Your task to perform on an android device: Open battery settings Image 0: 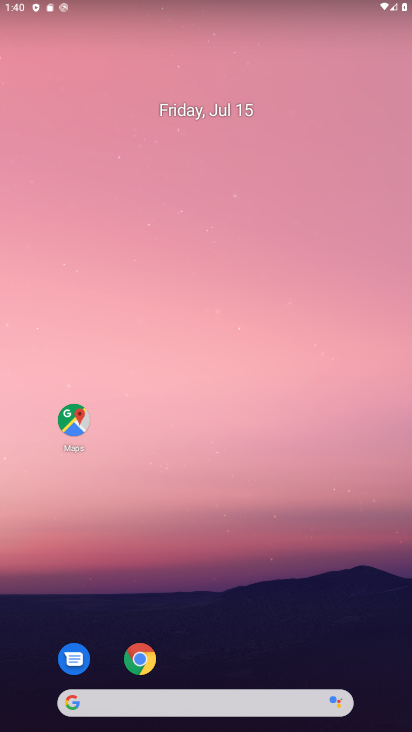
Step 0: drag from (362, 652) to (235, 89)
Your task to perform on an android device: Open battery settings Image 1: 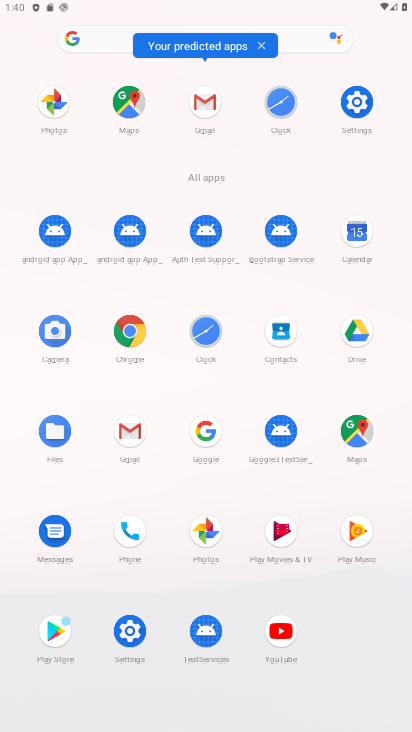
Step 1: click (351, 103)
Your task to perform on an android device: Open battery settings Image 2: 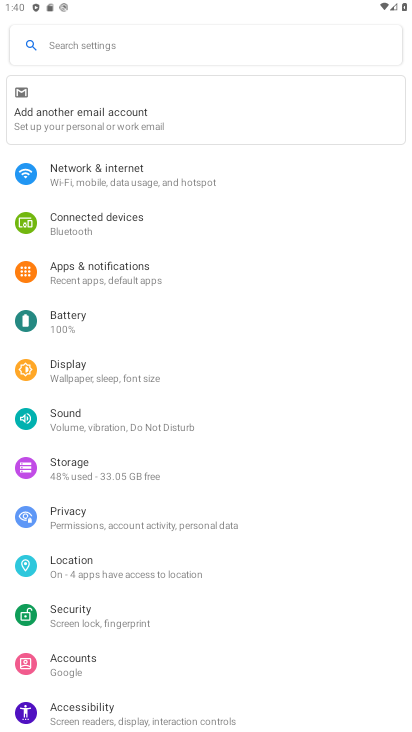
Step 2: click (147, 326)
Your task to perform on an android device: Open battery settings Image 3: 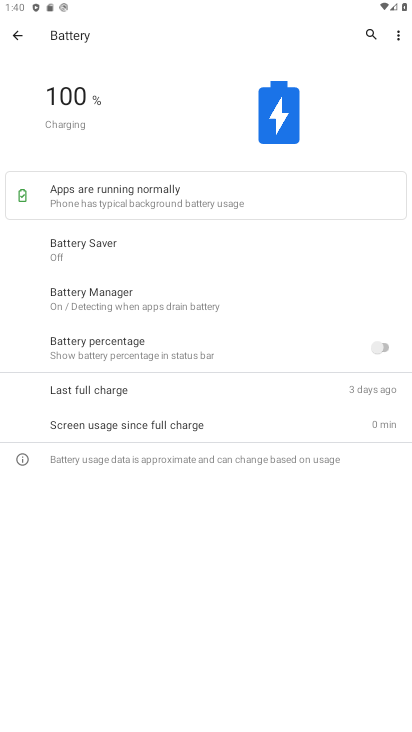
Step 3: task complete